Your task to perform on an android device: set the timer Image 0: 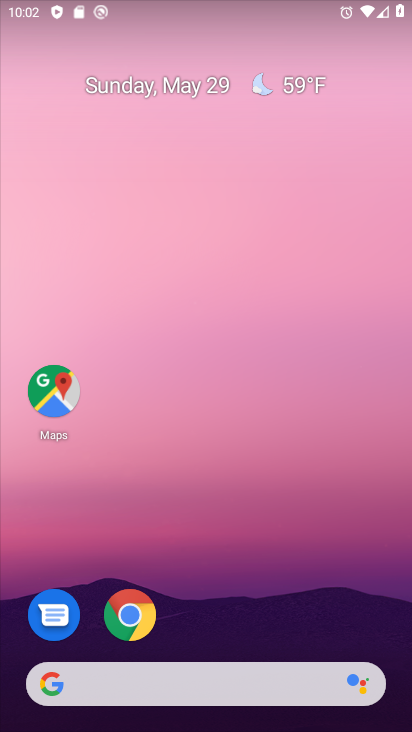
Step 0: drag from (225, 603) to (179, 91)
Your task to perform on an android device: set the timer Image 1: 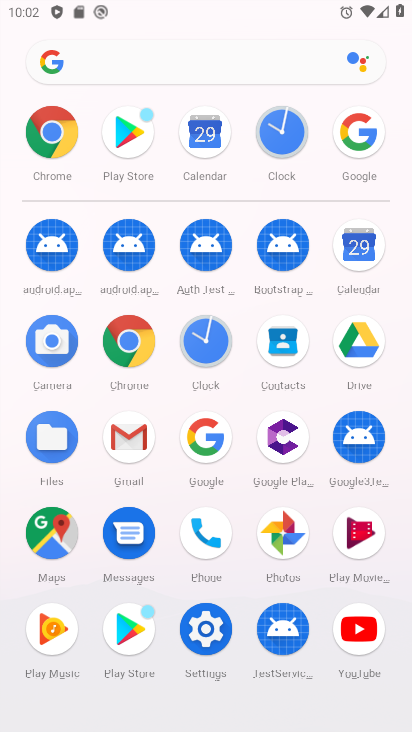
Step 1: click (202, 349)
Your task to perform on an android device: set the timer Image 2: 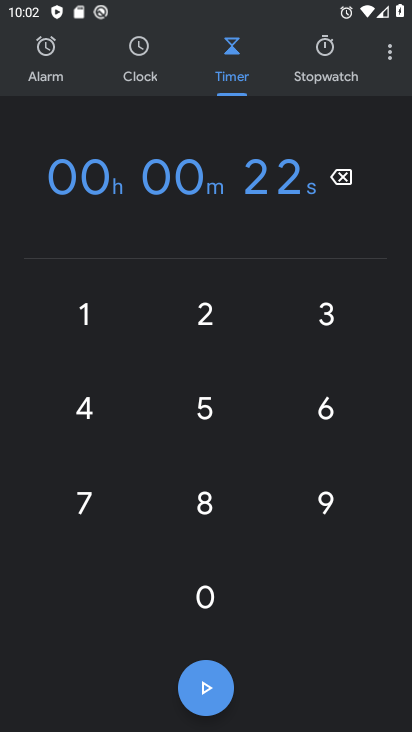
Step 2: click (211, 319)
Your task to perform on an android device: set the timer Image 3: 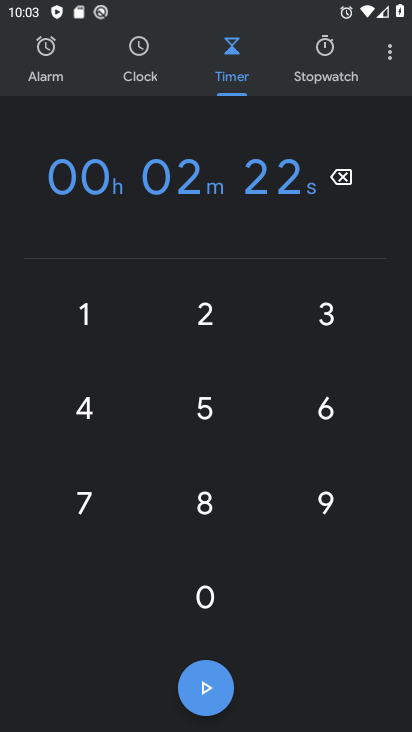
Step 3: task complete